Your task to perform on an android device: search for starred emails in the gmail app Image 0: 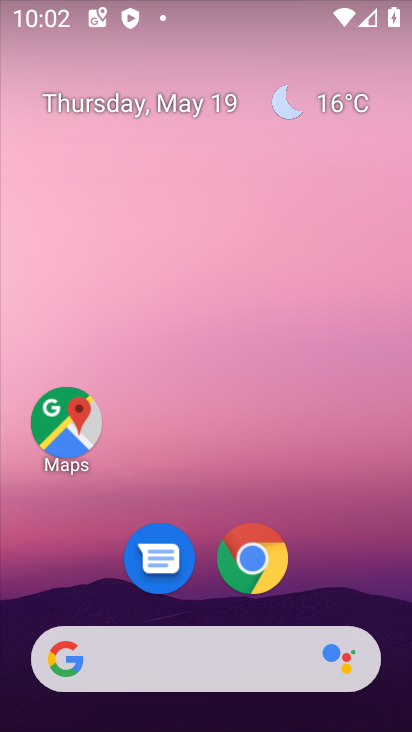
Step 0: drag from (213, 725) to (221, 92)
Your task to perform on an android device: search for starred emails in the gmail app Image 1: 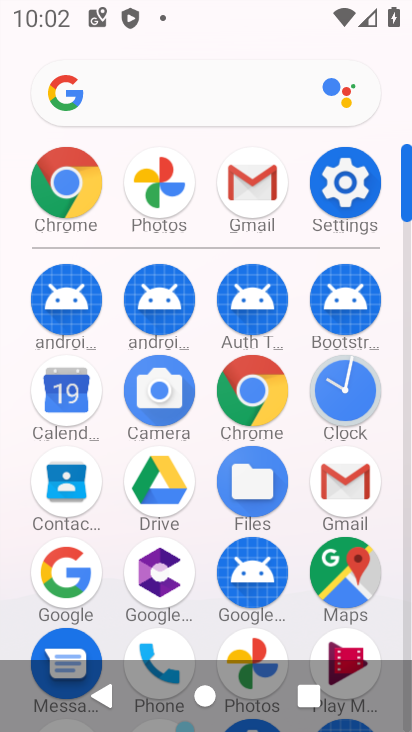
Step 1: click (346, 489)
Your task to perform on an android device: search for starred emails in the gmail app Image 2: 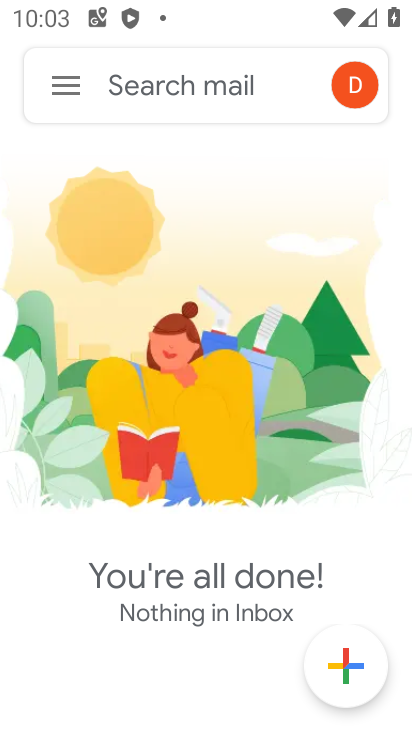
Step 2: click (64, 73)
Your task to perform on an android device: search for starred emails in the gmail app Image 3: 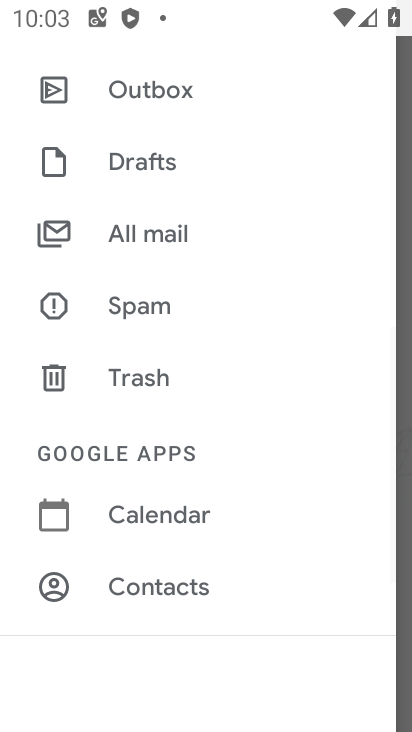
Step 3: drag from (164, 140) to (173, 488)
Your task to perform on an android device: search for starred emails in the gmail app Image 4: 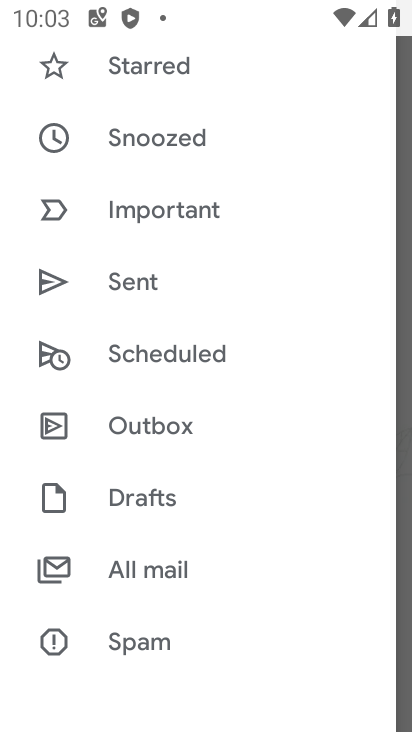
Step 4: click (162, 67)
Your task to perform on an android device: search for starred emails in the gmail app Image 5: 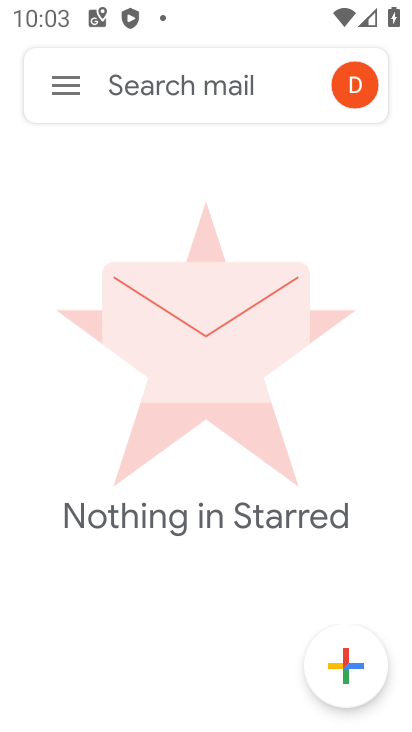
Step 5: task complete